Your task to perform on an android device: Check the weather Image 0: 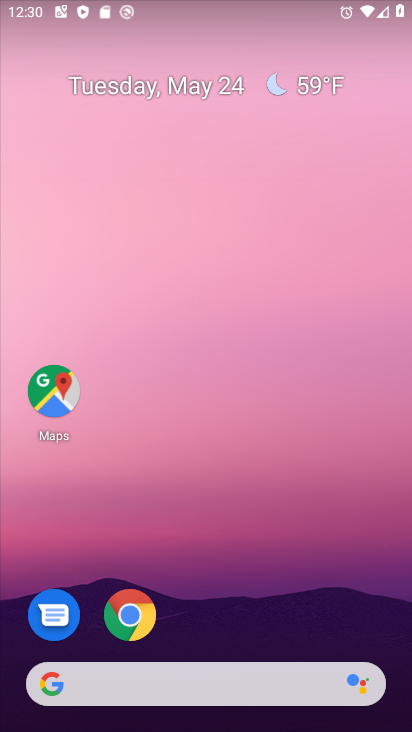
Step 0: drag from (273, 587) to (250, 95)
Your task to perform on an android device: Check the weather Image 1: 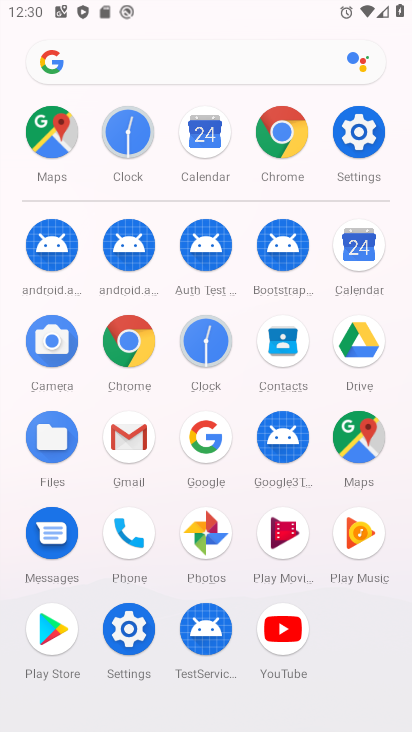
Step 1: drag from (1, 587) to (6, 265)
Your task to perform on an android device: Check the weather Image 2: 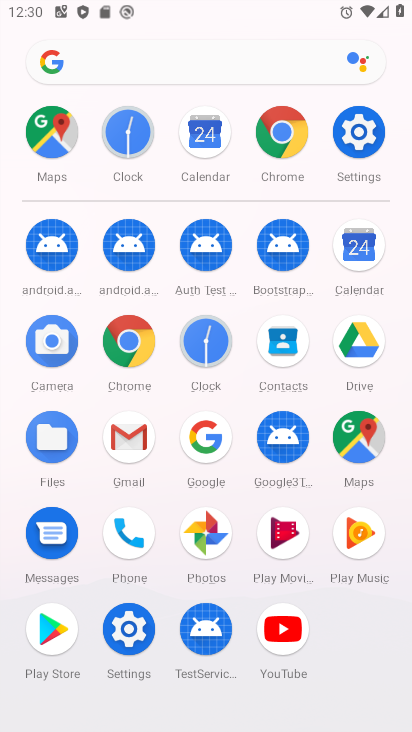
Step 2: click (130, 336)
Your task to perform on an android device: Check the weather Image 3: 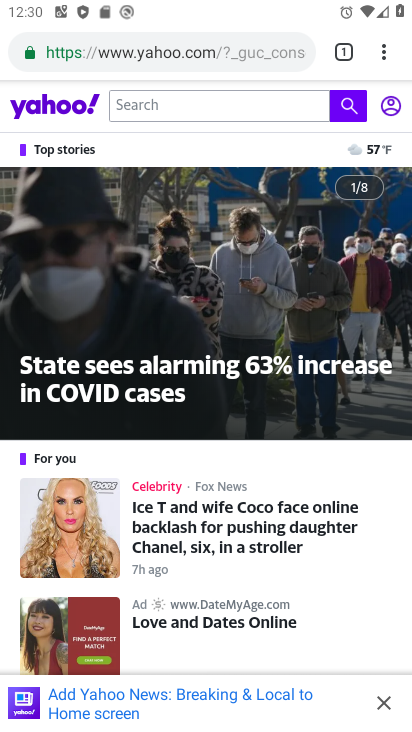
Step 3: click (187, 51)
Your task to perform on an android device: Check the weather Image 4: 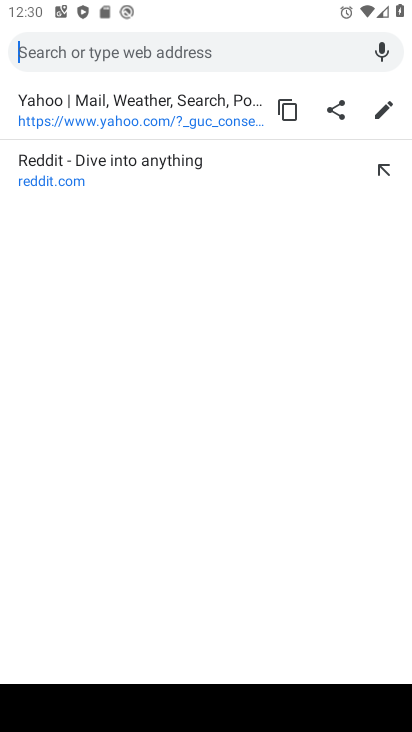
Step 4: type "Check the weather"
Your task to perform on an android device: Check the weather Image 5: 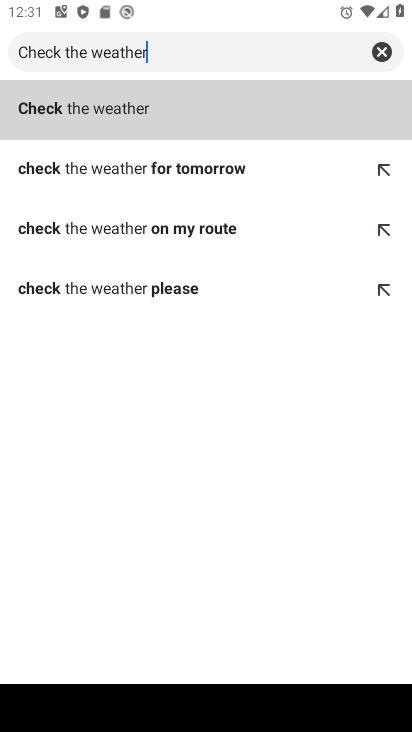
Step 5: type ""
Your task to perform on an android device: Check the weather Image 6: 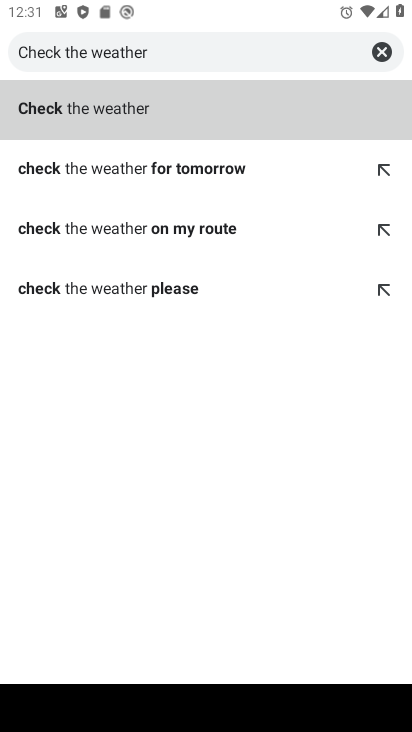
Step 6: click (185, 104)
Your task to perform on an android device: Check the weather Image 7: 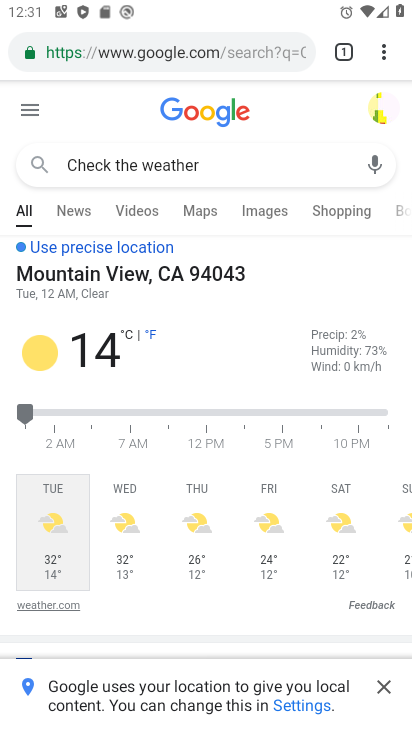
Step 7: task complete